Your task to perform on an android device: Do I have any events today? Image 0: 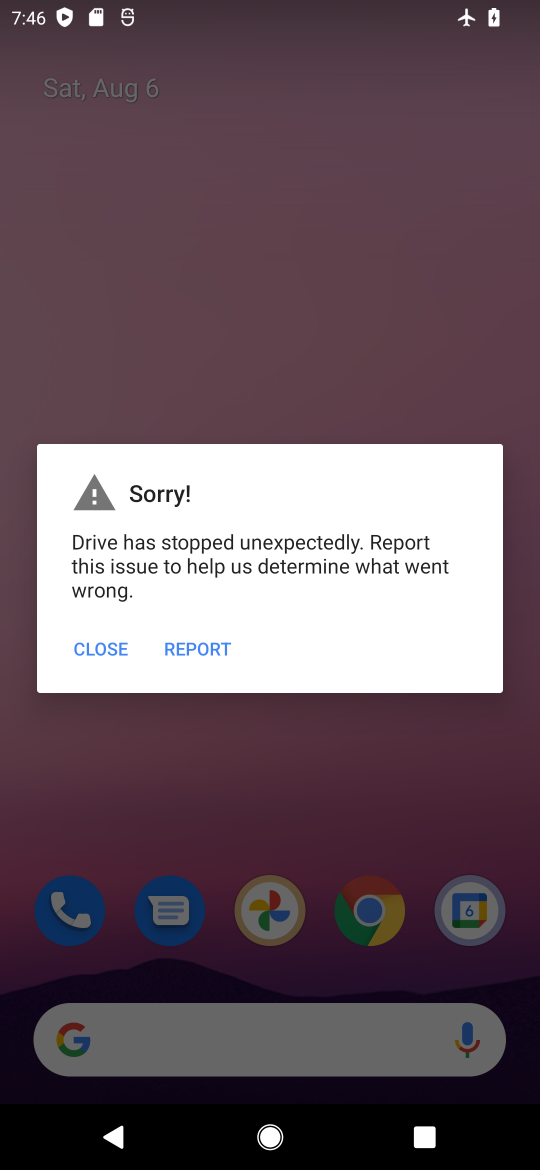
Step 0: press home button
Your task to perform on an android device: Do I have any events today? Image 1: 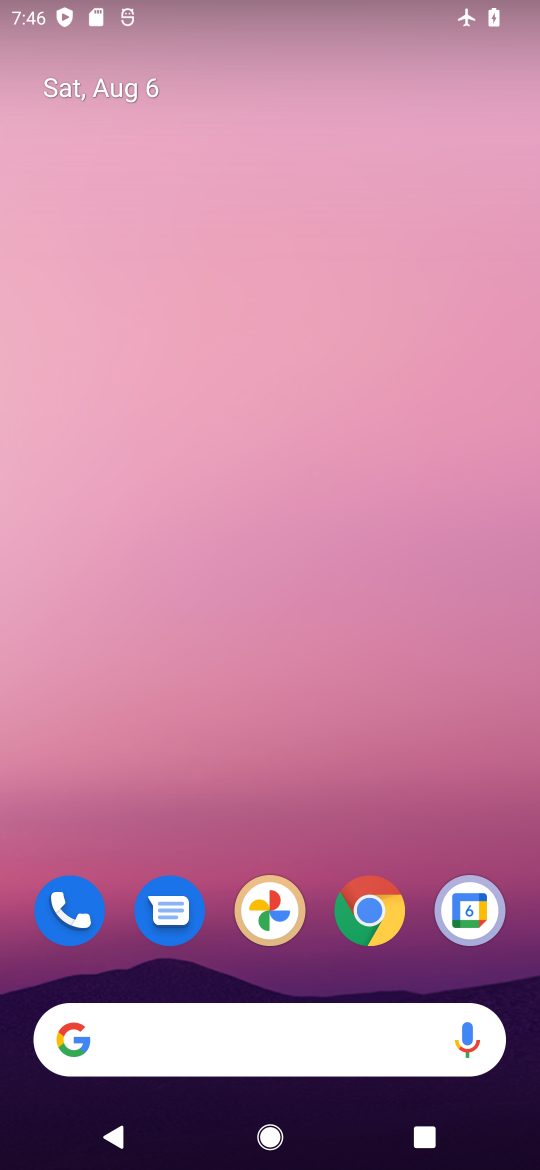
Step 1: drag from (483, 1001) to (474, 188)
Your task to perform on an android device: Do I have any events today? Image 2: 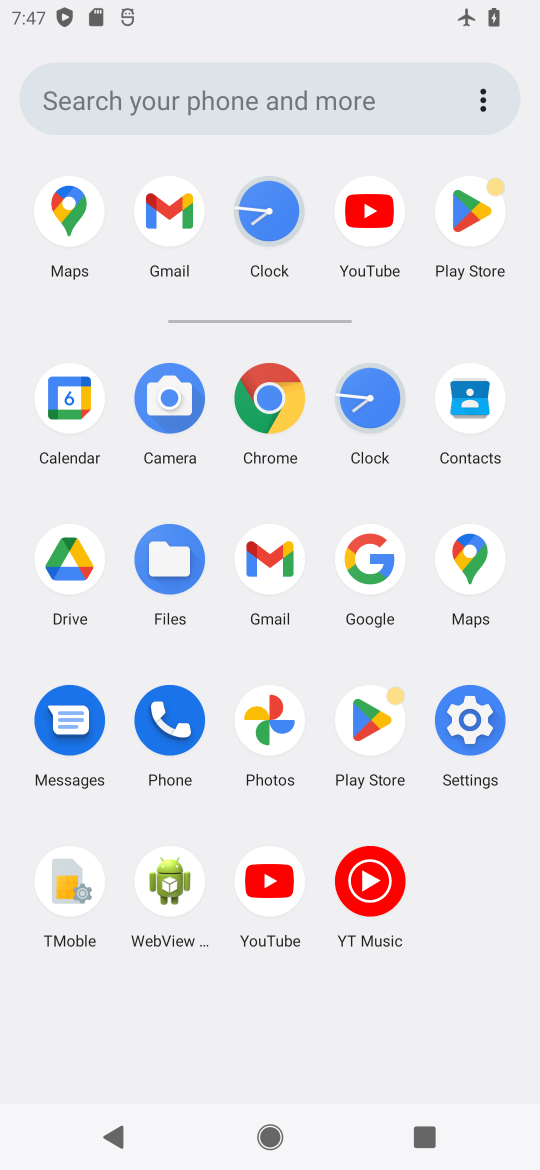
Step 2: click (62, 404)
Your task to perform on an android device: Do I have any events today? Image 3: 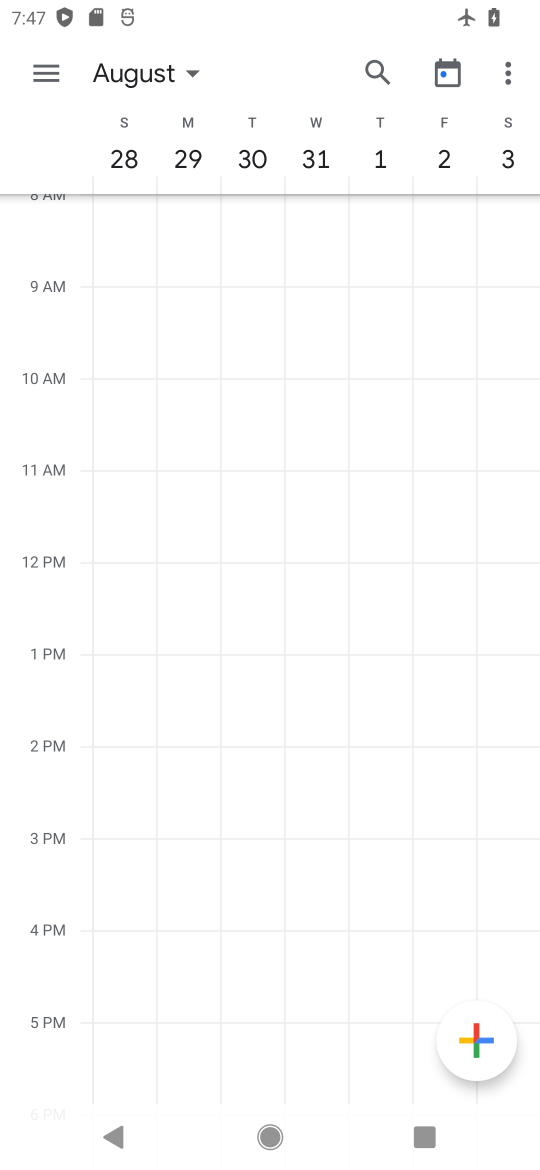
Step 3: click (187, 66)
Your task to perform on an android device: Do I have any events today? Image 4: 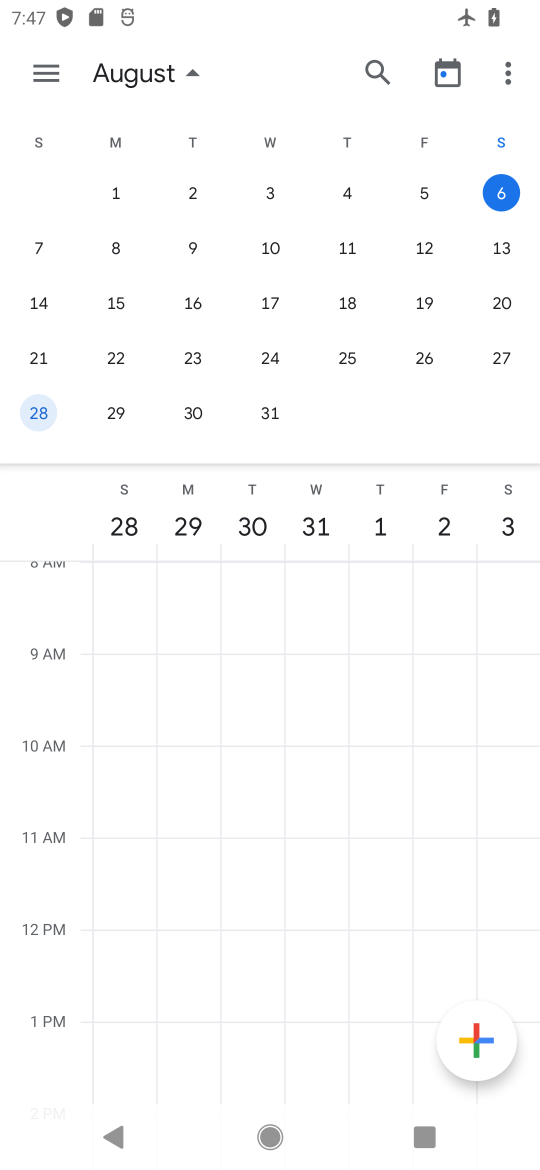
Step 4: drag from (23, 266) to (496, 333)
Your task to perform on an android device: Do I have any events today? Image 5: 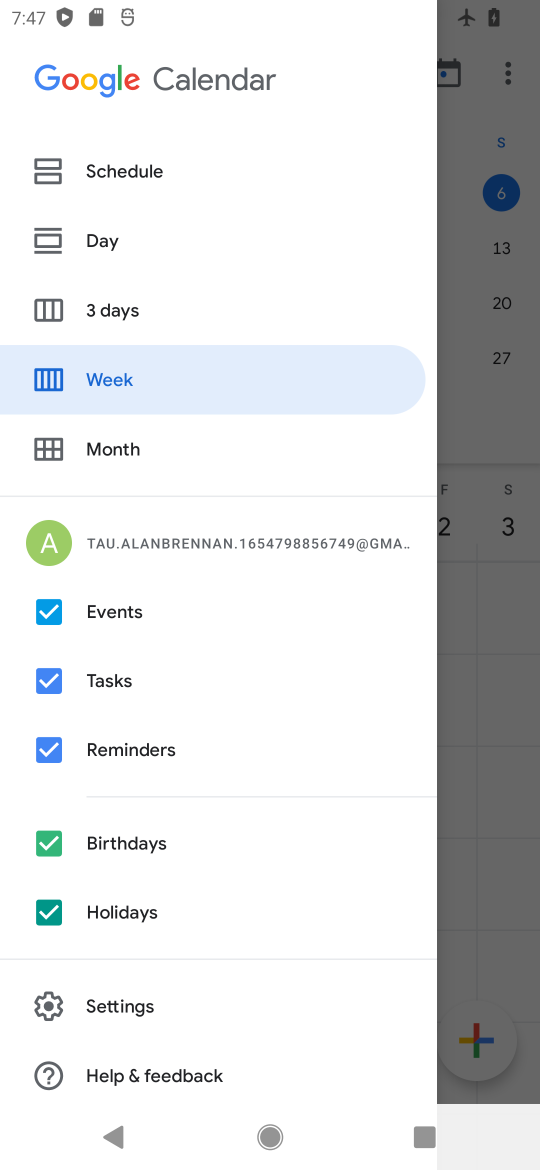
Step 5: click (511, 407)
Your task to perform on an android device: Do I have any events today? Image 6: 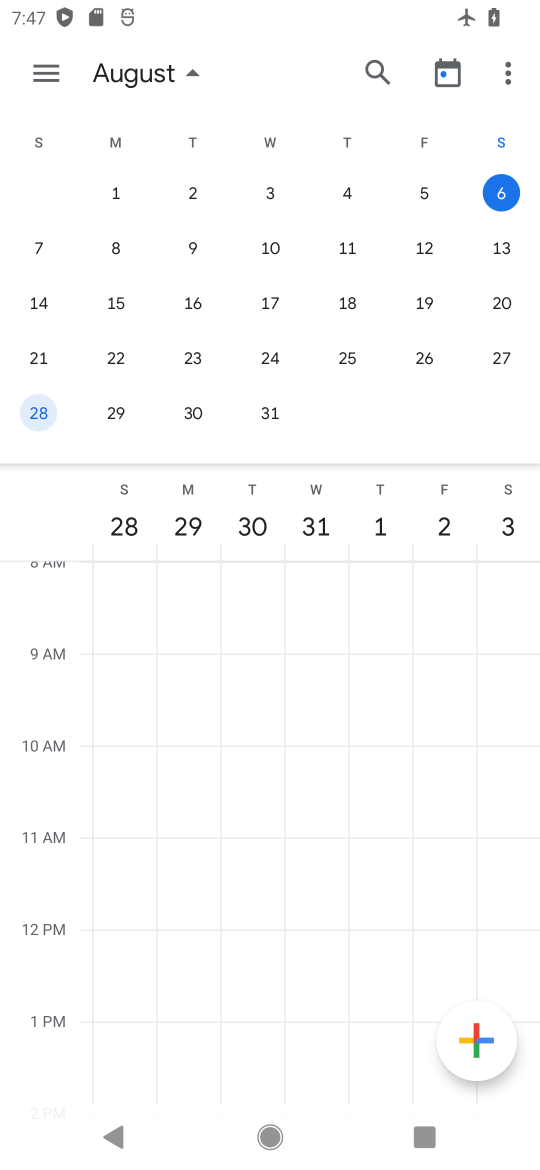
Step 6: click (494, 187)
Your task to perform on an android device: Do I have any events today? Image 7: 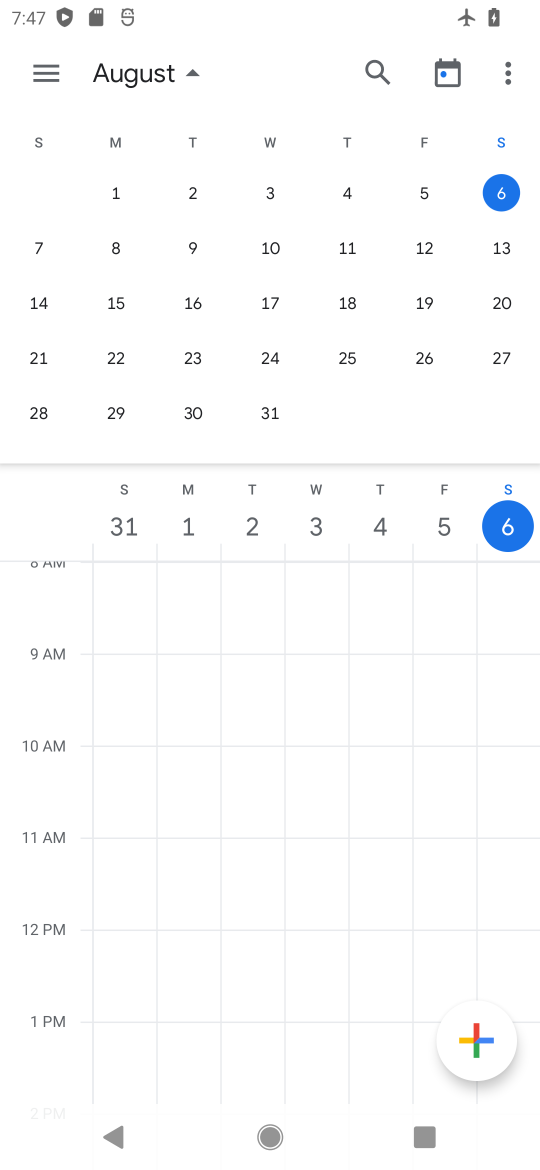
Step 7: click (31, 76)
Your task to perform on an android device: Do I have any events today? Image 8: 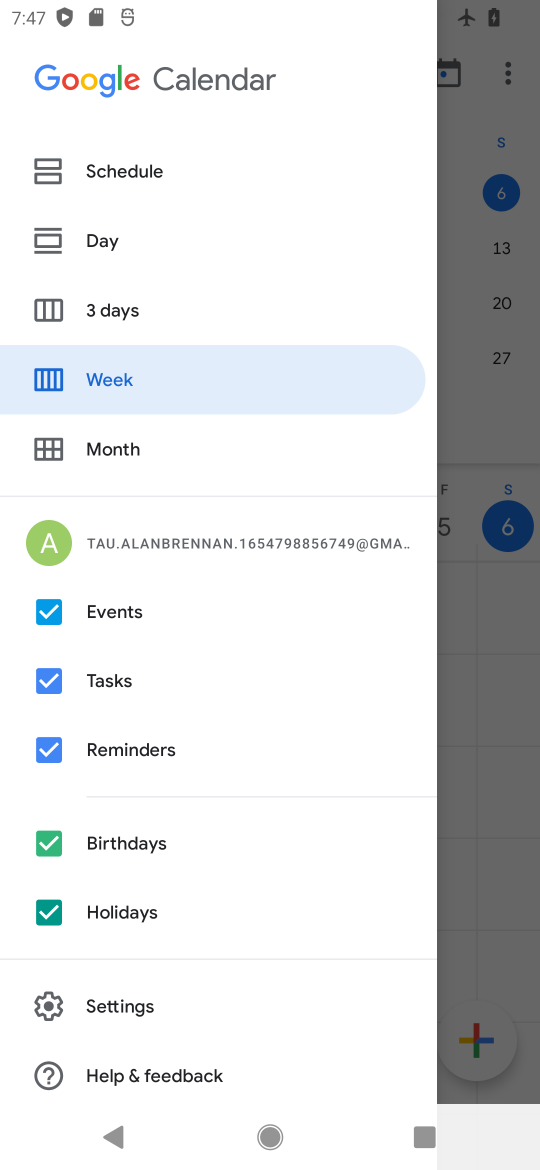
Step 8: click (123, 166)
Your task to perform on an android device: Do I have any events today? Image 9: 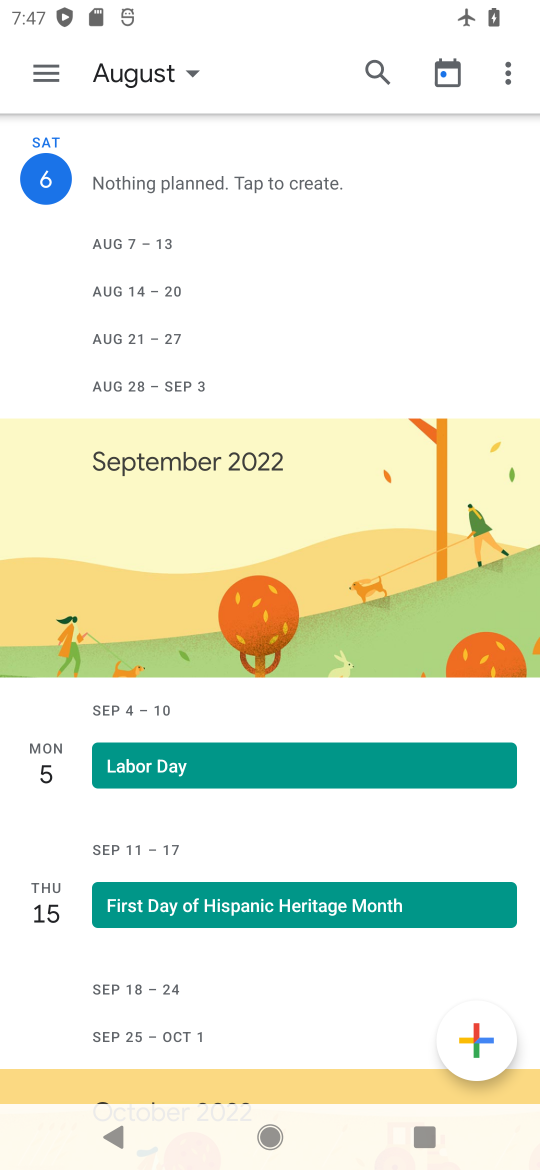
Step 9: task complete